Your task to perform on an android device: open a new tab in the chrome app Image 0: 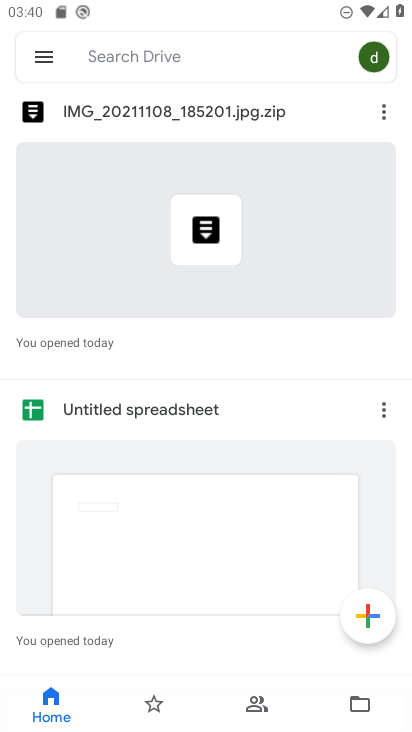
Step 0: press home button
Your task to perform on an android device: open a new tab in the chrome app Image 1: 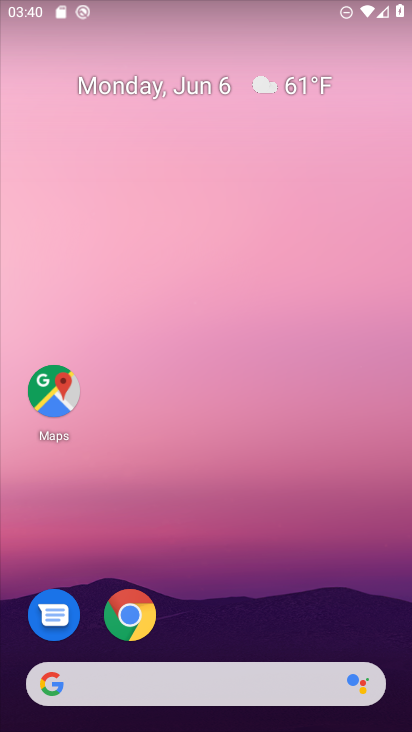
Step 1: click (124, 607)
Your task to perform on an android device: open a new tab in the chrome app Image 2: 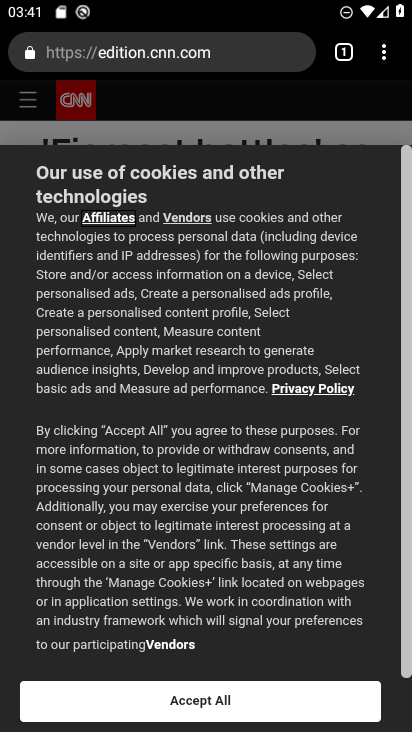
Step 2: click (380, 58)
Your task to perform on an android device: open a new tab in the chrome app Image 3: 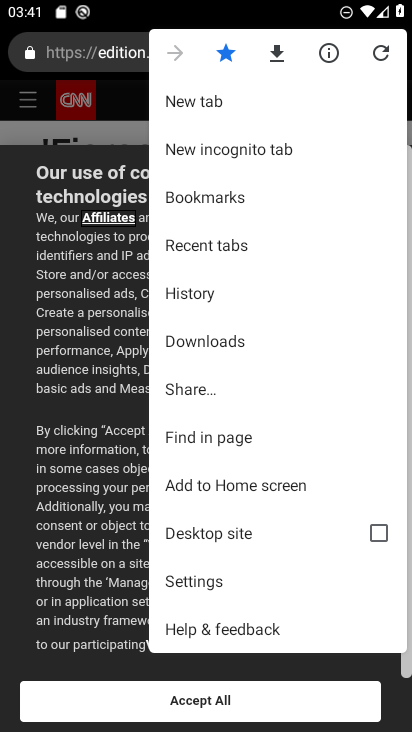
Step 3: click (211, 105)
Your task to perform on an android device: open a new tab in the chrome app Image 4: 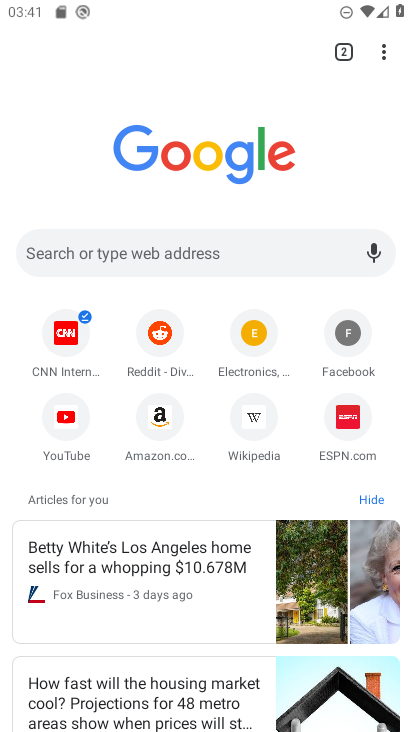
Step 4: task complete